Your task to perform on an android device: stop showing notifications on the lock screen Image 0: 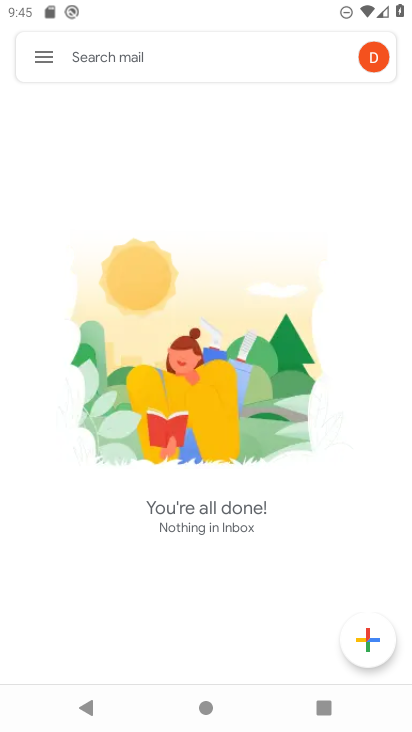
Step 0: press home button
Your task to perform on an android device: stop showing notifications on the lock screen Image 1: 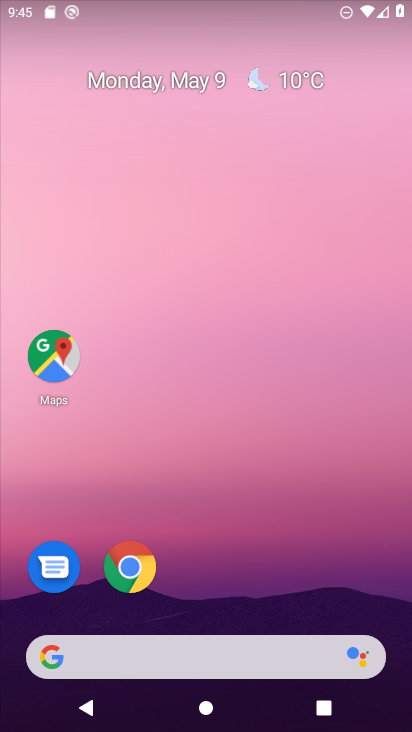
Step 1: drag from (222, 530) to (239, 56)
Your task to perform on an android device: stop showing notifications on the lock screen Image 2: 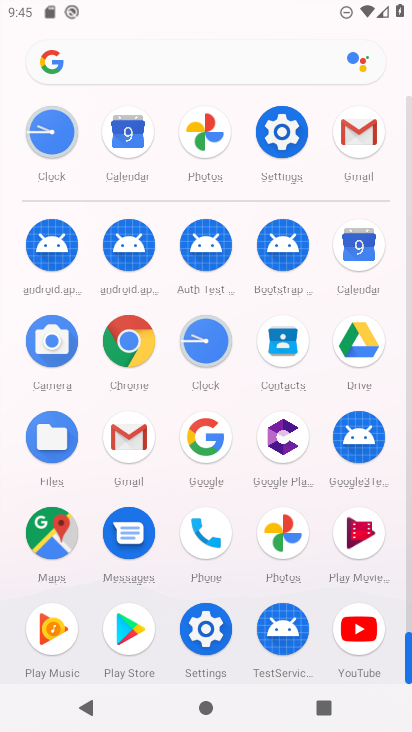
Step 2: click (267, 125)
Your task to perform on an android device: stop showing notifications on the lock screen Image 3: 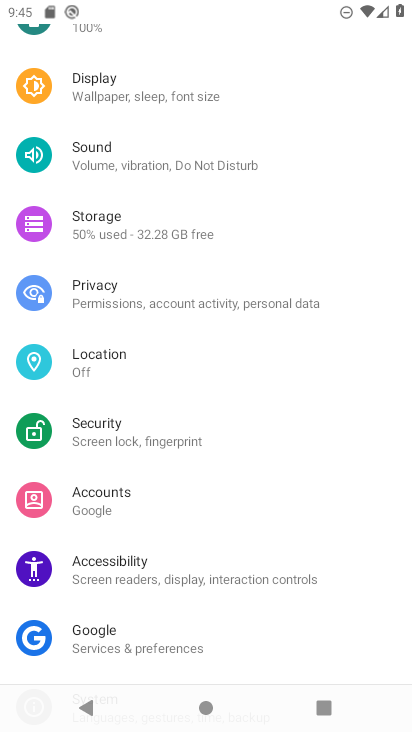
Step 3: drag from (201, 209) to (223, 504)
Your task to perform on an android device: stop showing notifications on the lock screen Image 4: 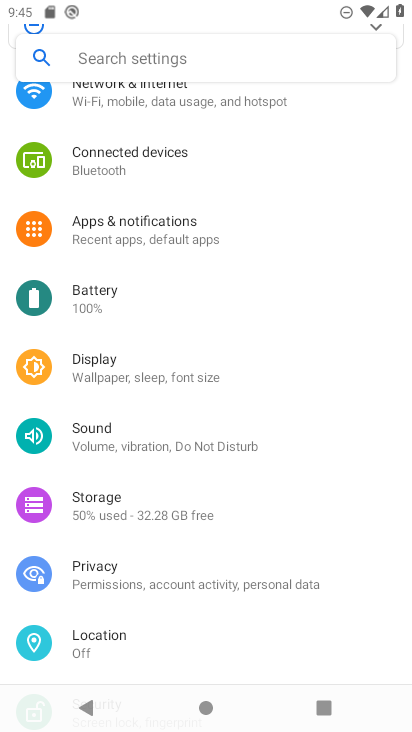
Step 4: click (193, 229)
Your task to perform on an android device: stop showing notifications on the lock screen Image 5: 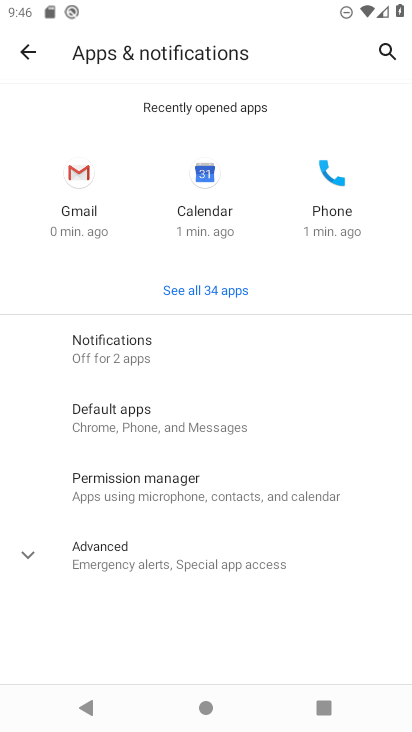
Step 5: click (130, 343)
Your task to perform on an android device: stop showing notifications on the lock screen Image 6: 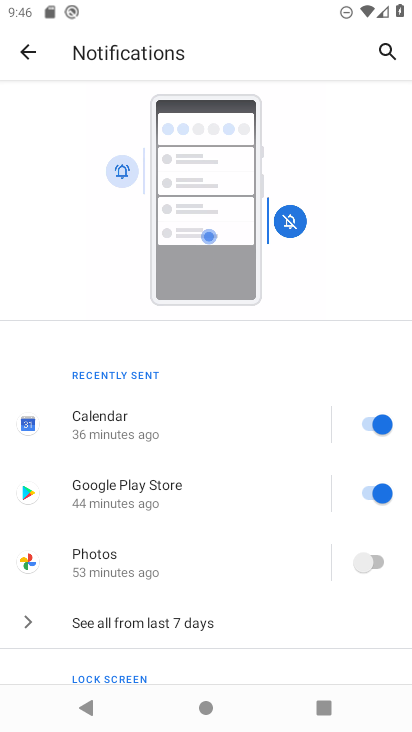
Step 6: drag from (228, 500) to (305, 200)
Your task to perform on an android device: stop showing notifications on the lock screen Image 7: 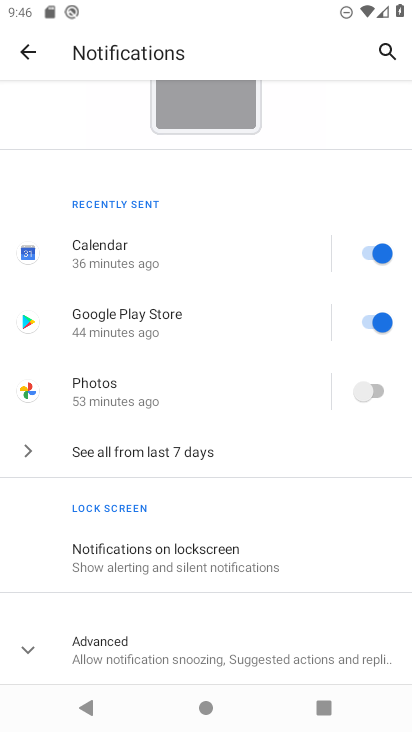
Step 7: click (222, 555)
Your task to perform on an android device: stop showing notifications on the lock screen Image 8: 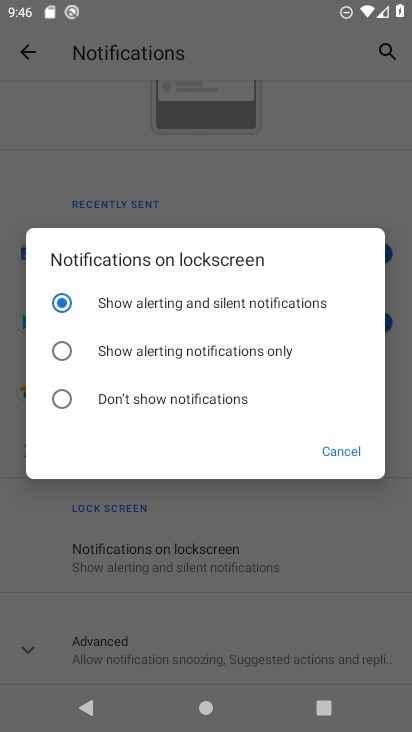
Step 8: click (58, 395)
Your task to perform on an android device: stop showing notifications on the lock screen Image 9: 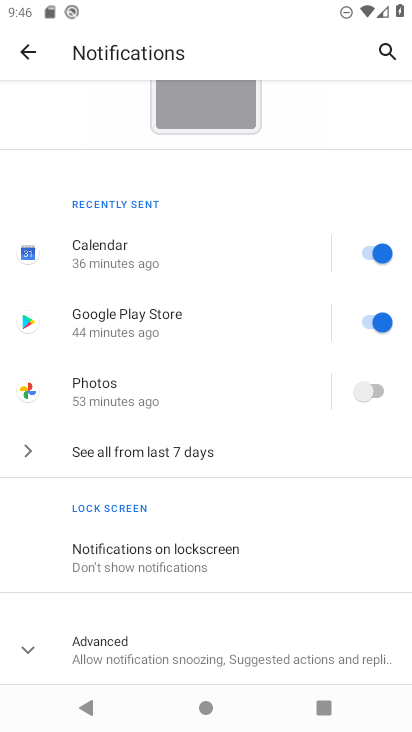
Step 9: task complete